Your task to perform on an android device: Search for apple airpods on target.com, select the first entry, add it to the cart, then select checkout. Image 0: 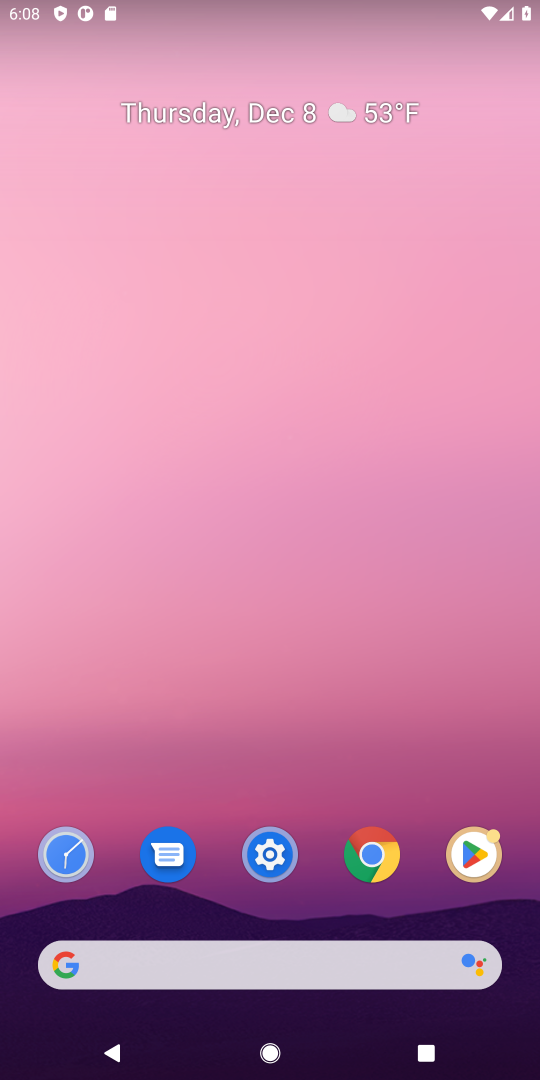
Step 0: click (98, 964)
Your task to perform on an android device: Search for apple airpods on target.com, select the first entry, add it to the cart, then select checkout. Image 1: 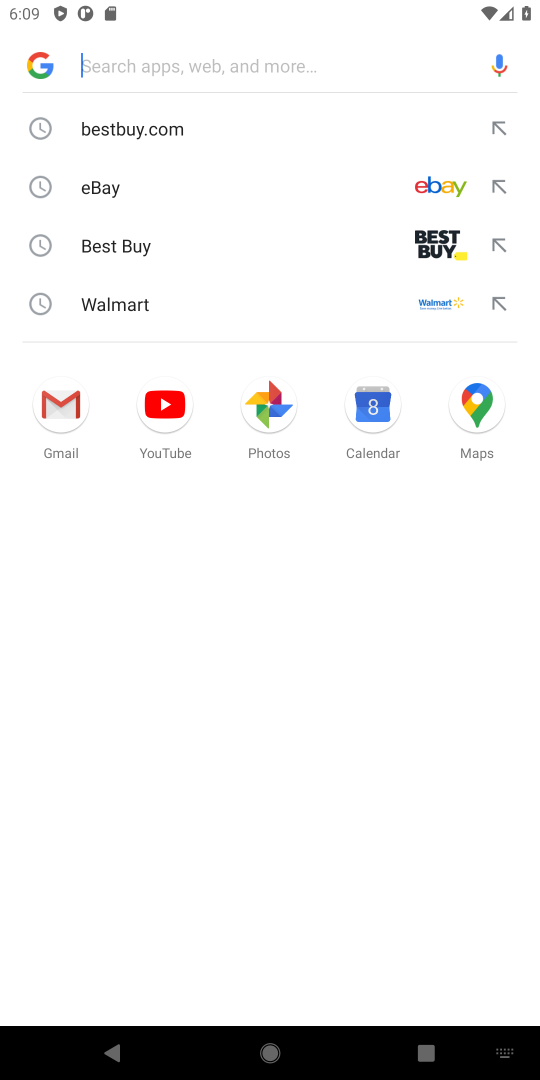
Step 1: type "target.com"
Your task to perform on an android device: Search for apple airpods on target.com, select the first entry, add it to the cart, then select checkout. Image 2: 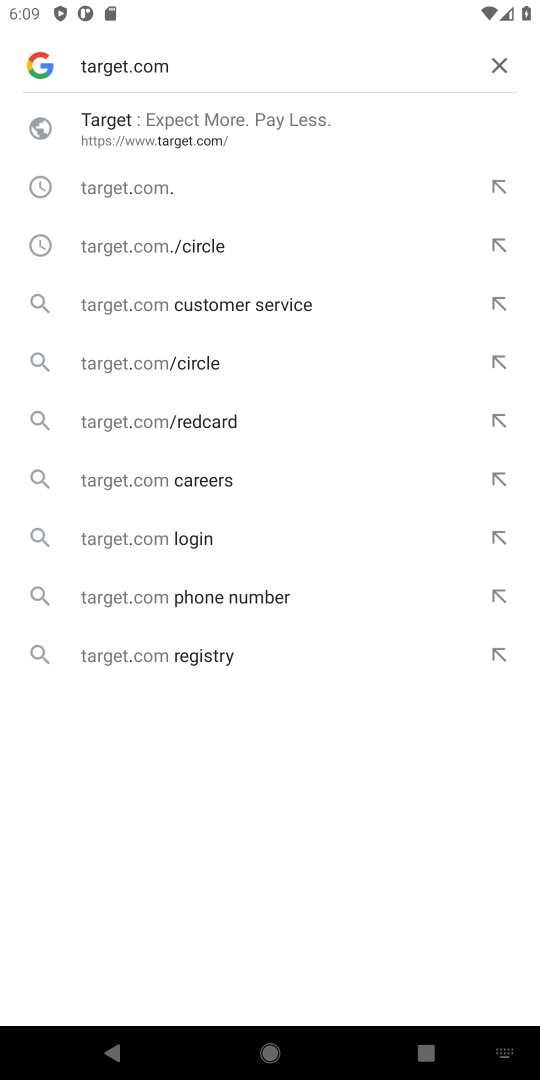
Step 2: press enter
Your task to perform on an android device: Search for apple airpods on target.com, select the first entry, add it to the cart, then select checkout. Image 3: 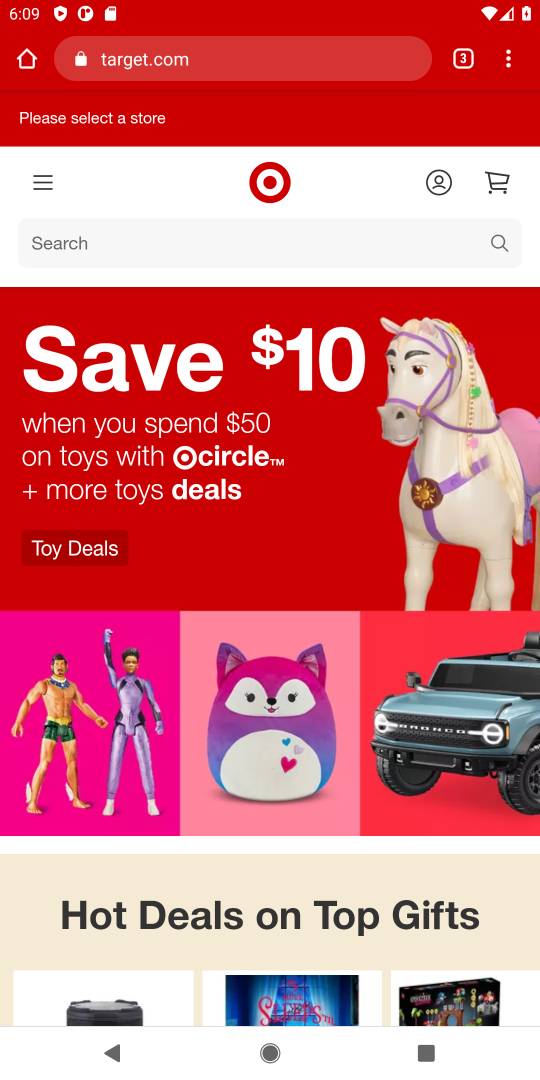
Step 3: click (62, 248)
Your task to perform on an android device: Search for apple airpods on target.com, select the first entry, add it to the cart, then select checkout. Image 4: 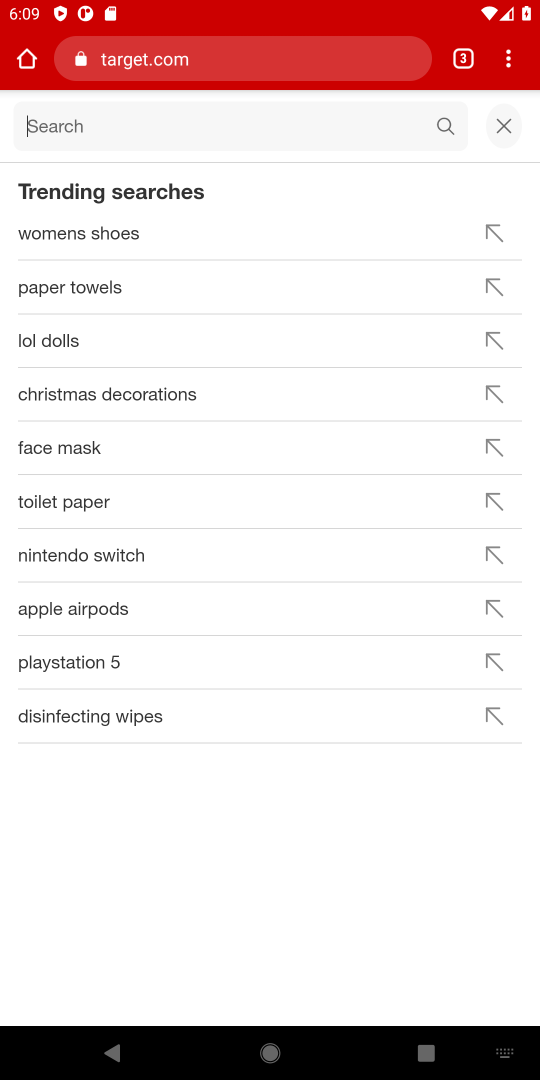
Step 4: type "apple airpods"
Your task to perform on an android device: Search for apple airpods on target.com, select the first entry, add it to the cart, then select checkout. Image 5: 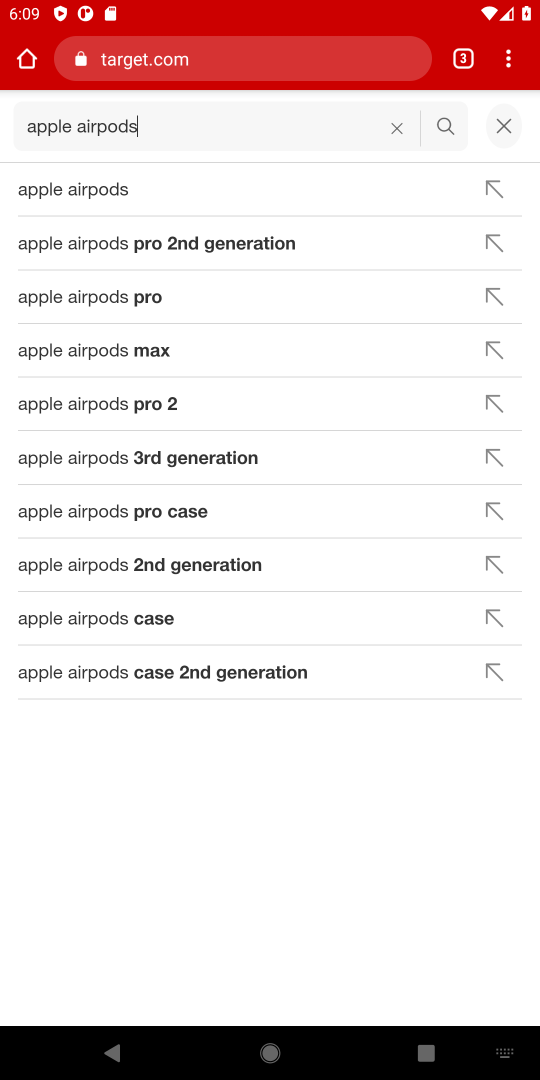
Step 5: press enter
Your task to perform on an android device: Search for apple airpods on target.com, select the first entry, add it to the cart, then select checkout. Image 6: 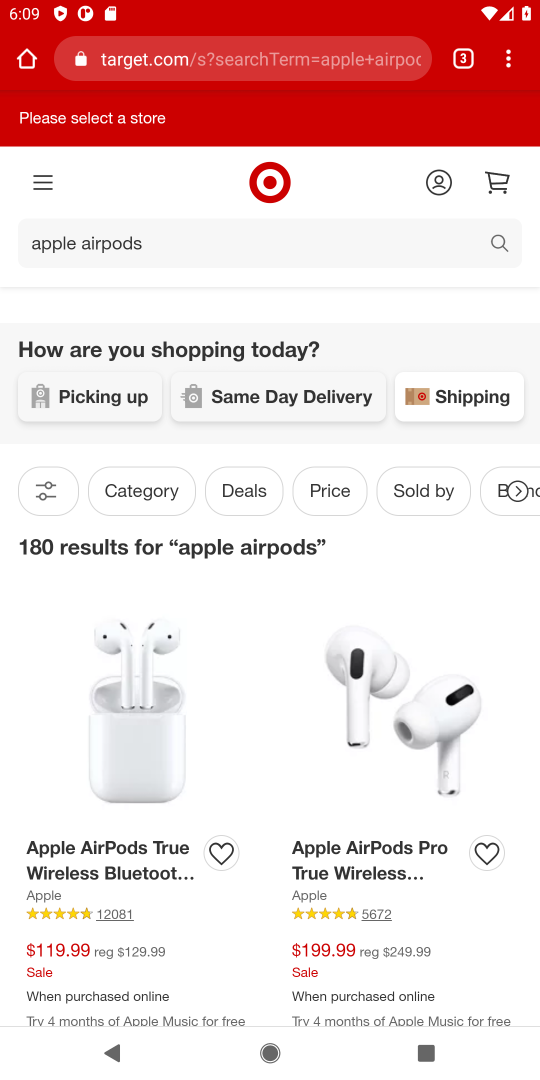
Step 6: click (118, 873)
Your task to perform on an android device: Search for apple airpods on target.com, select the first entry, add it to the cart, then select checkout. Image 7: 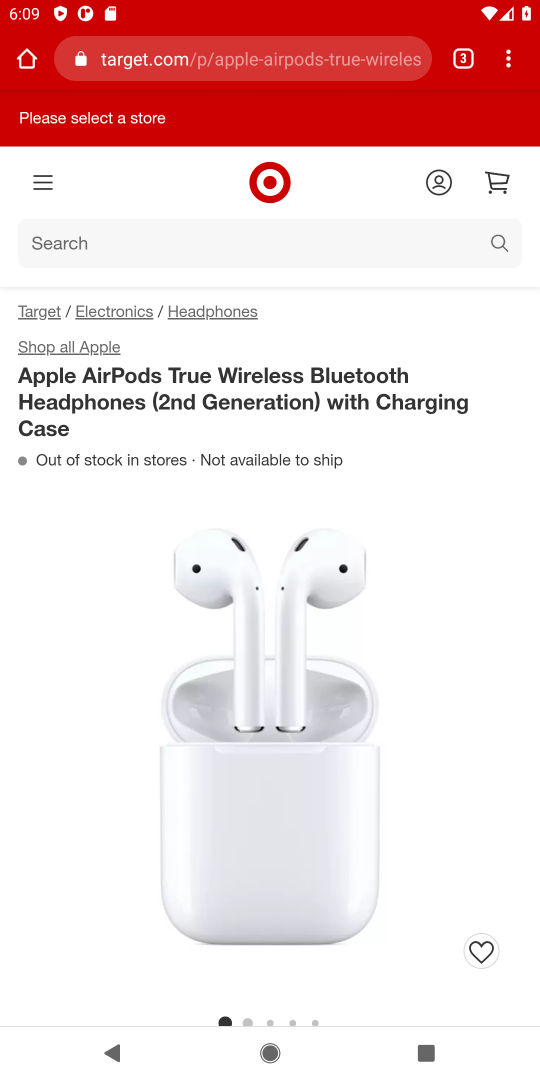
Step 7: drag from (358, 876) to (386, 315)
Your task to perform on an android device: Search for apple airpods on target.com, select the first entry, add it to the cart, then select checkout. Image 8: 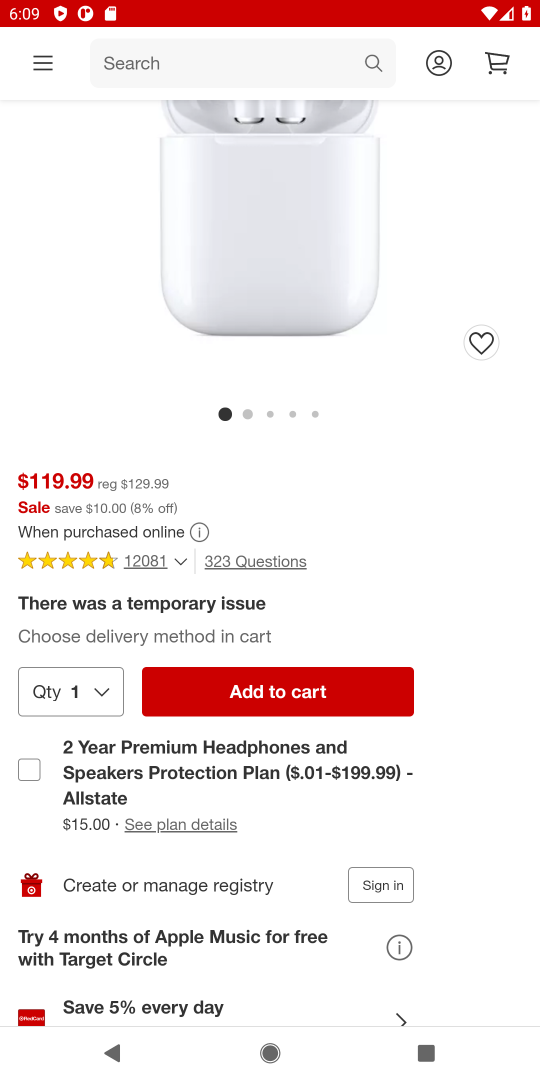
Step 8: click (324, 701)
Your task to perform on an android device: Search for apple airpods on target.com, select the first entry, add it to the cart, then select checkout. Image 9: 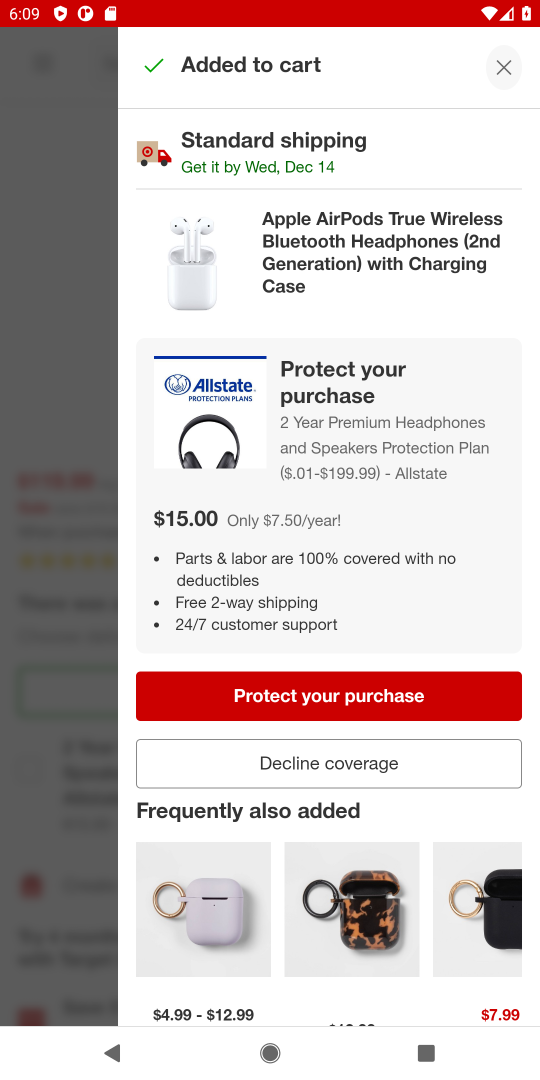
Step 9: click (389, 767)
Your task to perform on an android device: Search for apple airpods on target.com, select the first entry, add it to the cart, then select checkout. Image 10: 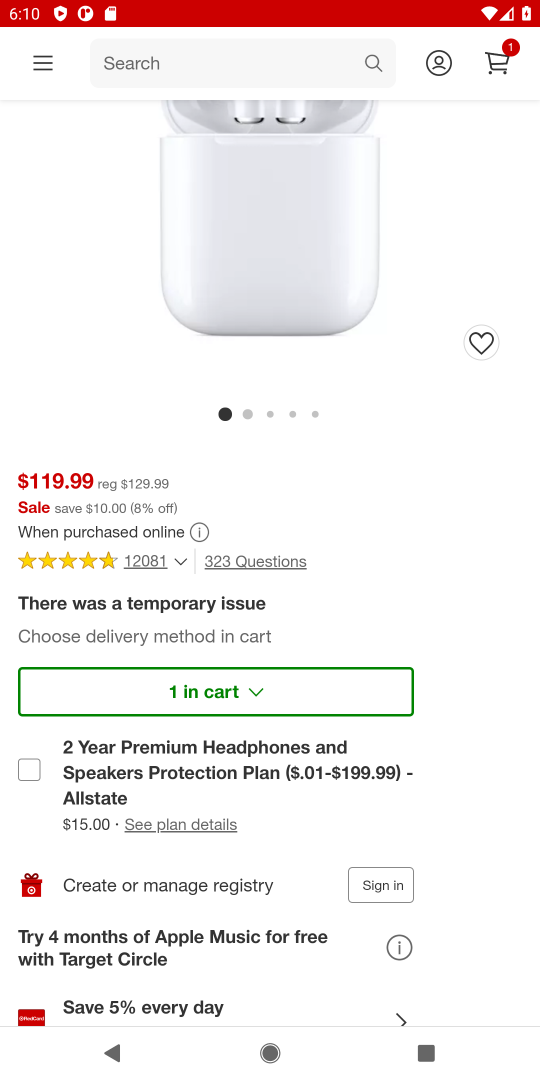
Step 10: click (501, 58)
Your task to perform on an android device: Search for apple airpods on target.com, select the first entry, add it to the cart, then select checkout. Image 11: 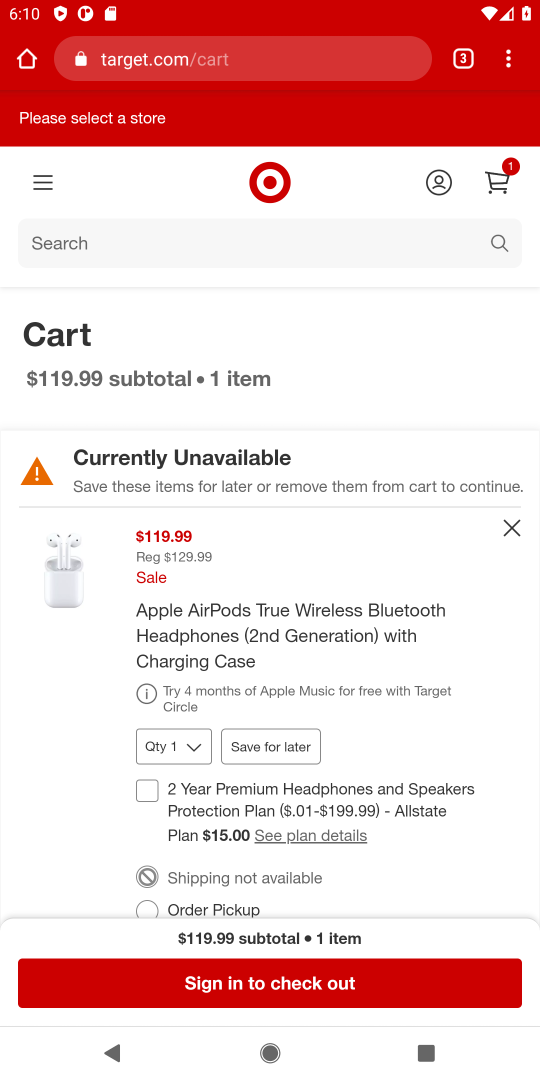
Step 11: click (295, 985)
Your task to perform on an android device: Search for apple airpods on target.com, select the first entry, add it to the cart, then select checkout. Image 12: 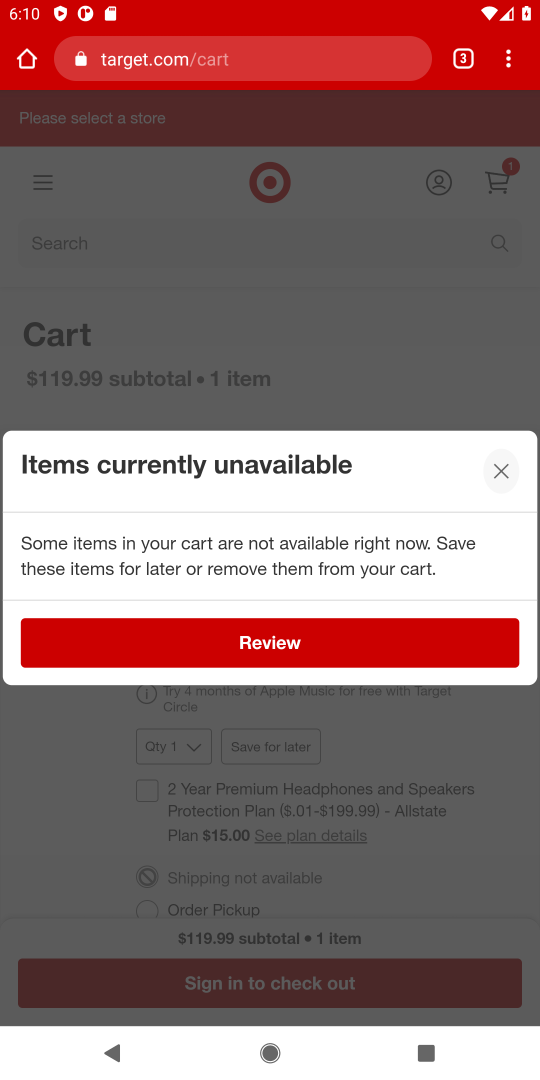
Step 12: click (502, 463)
Your task to perform on an android device: Search for apple airpods on target.com, select the first entry, add it to the cart, then select checkout. Image 13: 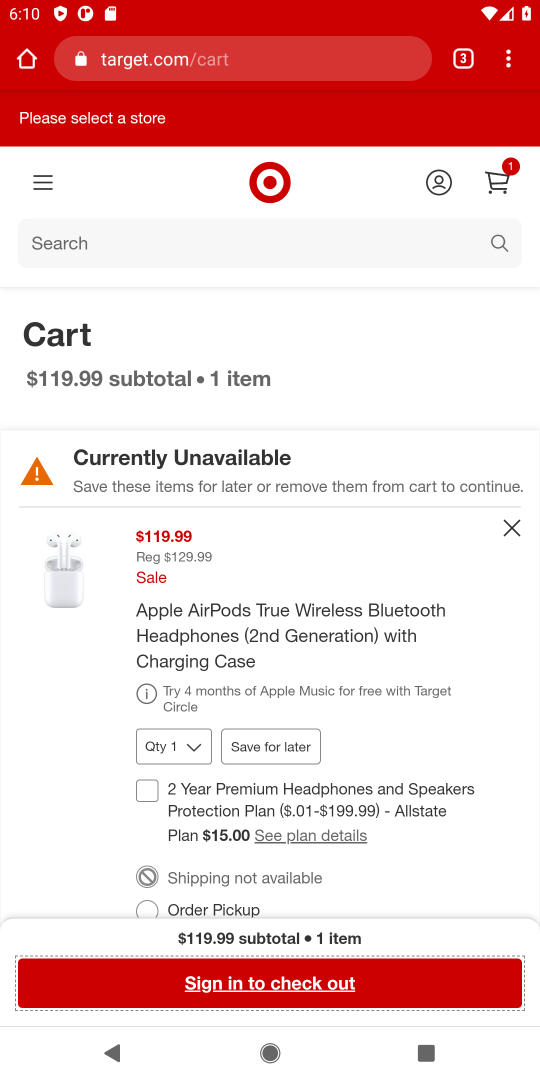
Step 13: click (318, 995)
Your task to perform on an android device: Search for apple airpods on target.com, select the first entry, add it to the cart, then select checkout. Image 14: 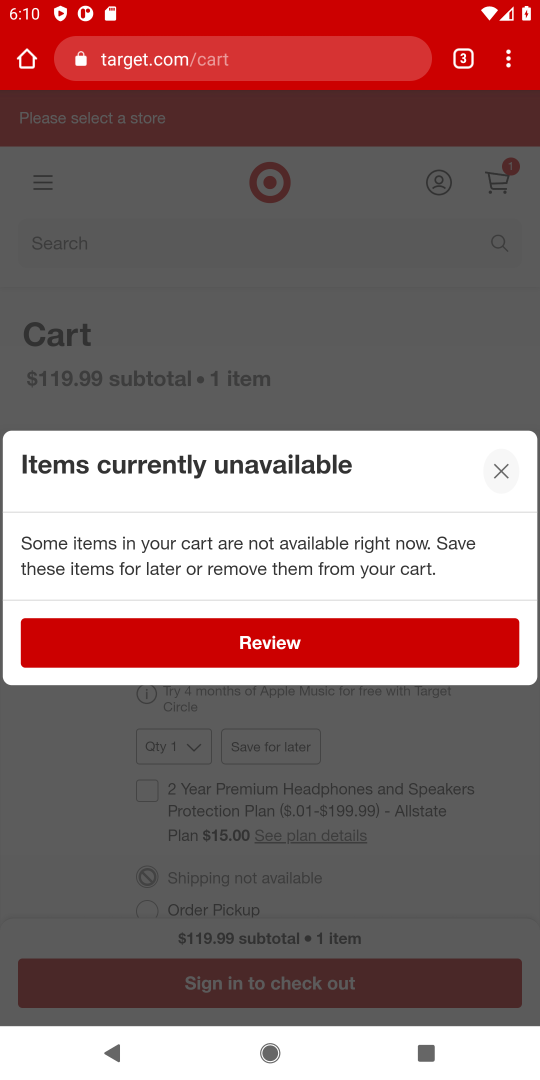
Step 14: task complete